Your task to perform on an android device: Clear all items from cart on walmart.com. Image 0: 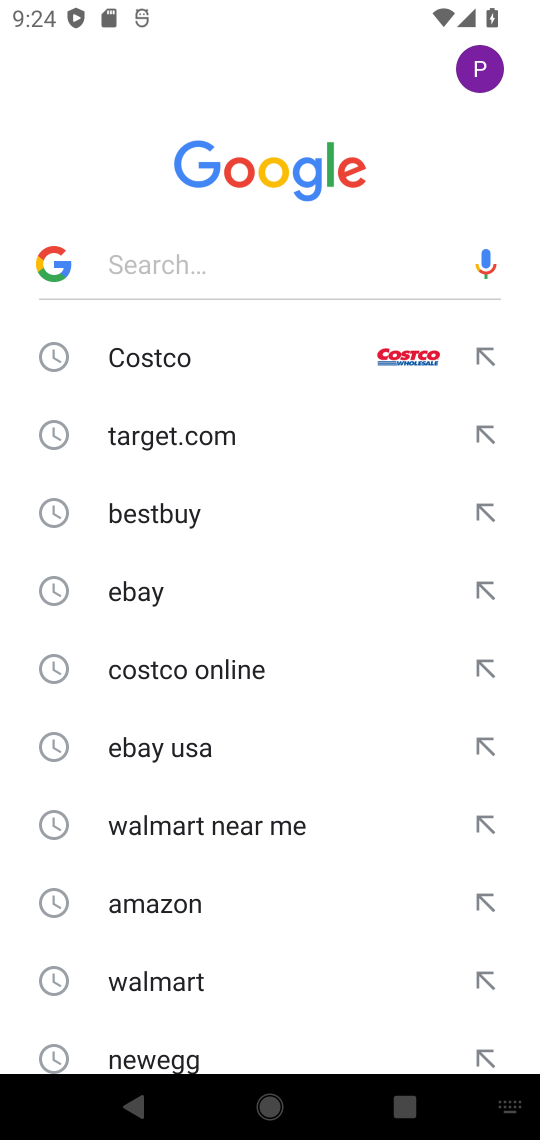
Step 0: press home button
Your task to perform on an android device: Clear all items from cart on walmart.com. Image 1: 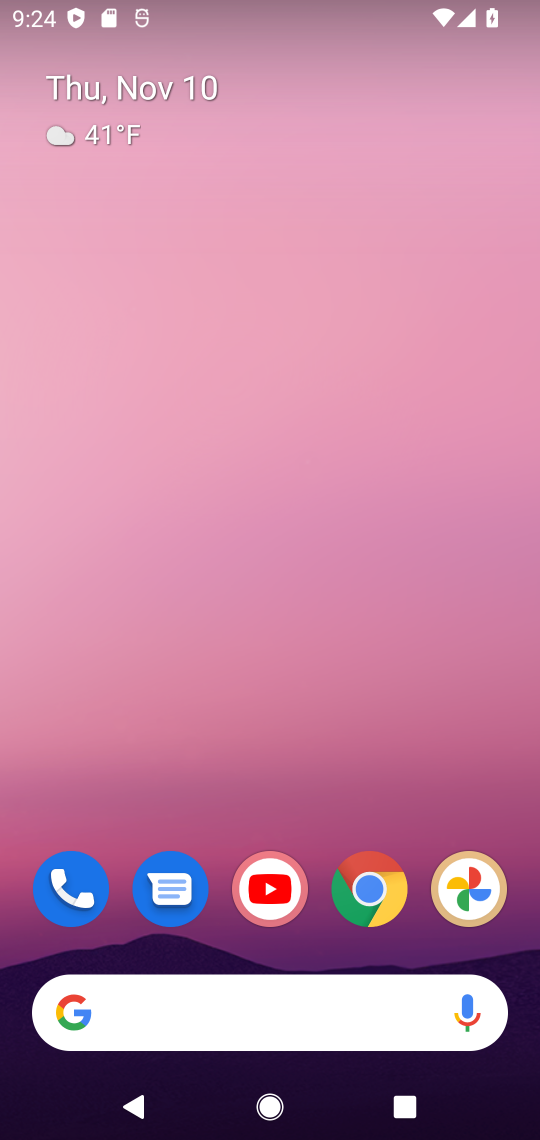
Step 1: click (370, 890)
Your task to perform on an android device: Clear all items from cart on walmart.com. Image 2: 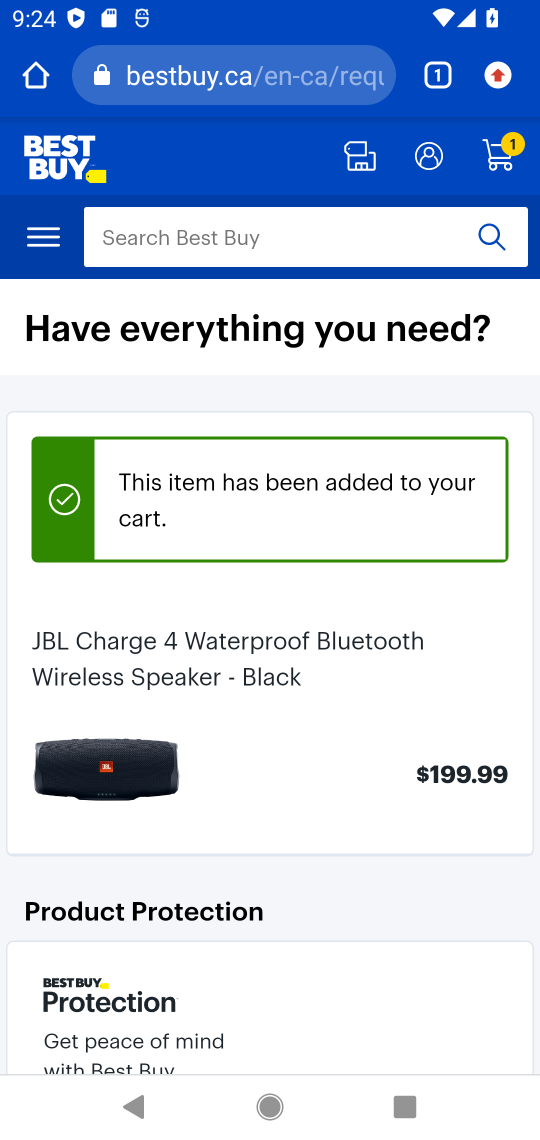
Step 2: click (296, 77)
Your task to perform on an android device: Clear all items from cart on walmart.com. Image 3: 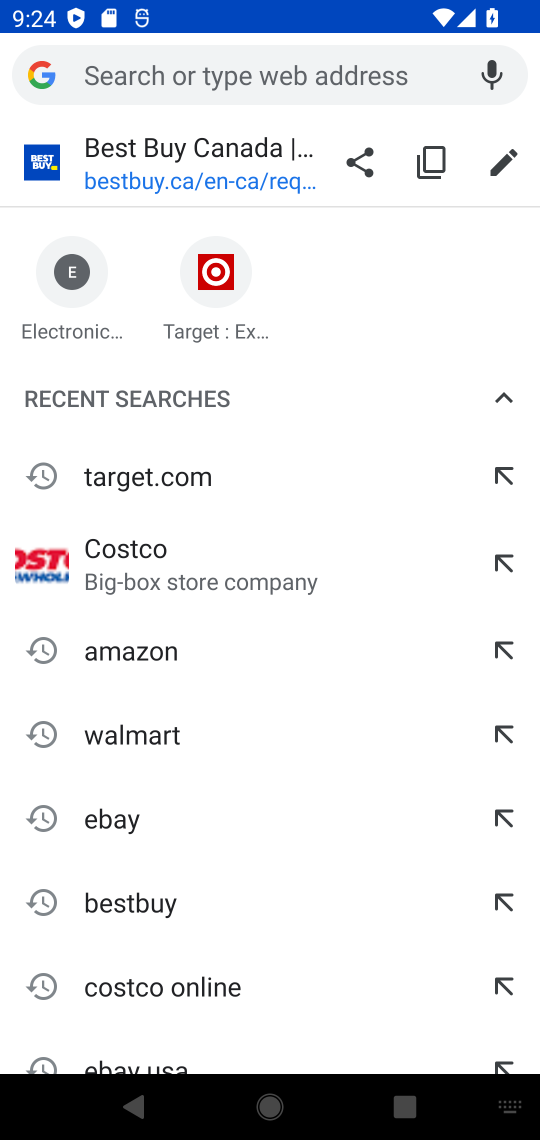
Step 3: click (127, 723)
Your task to perform on an android device: Clear all items from cart on walmart.com. Image 4: 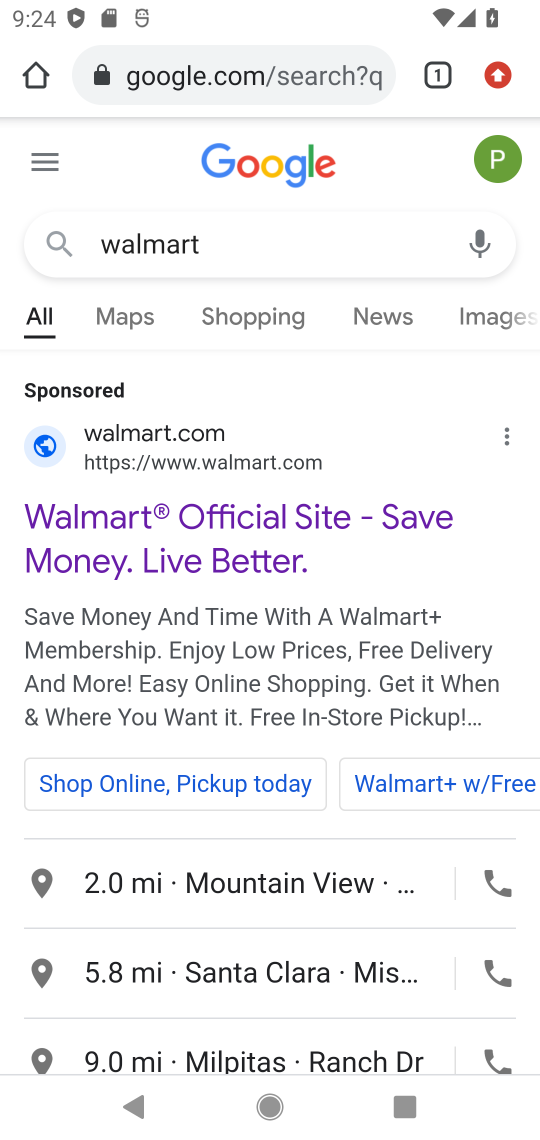
Step 4: drag from (281, 851) to (408, 132)
Your task to perform on an android device: Clear all items from cart on walmart.com. Image 5: 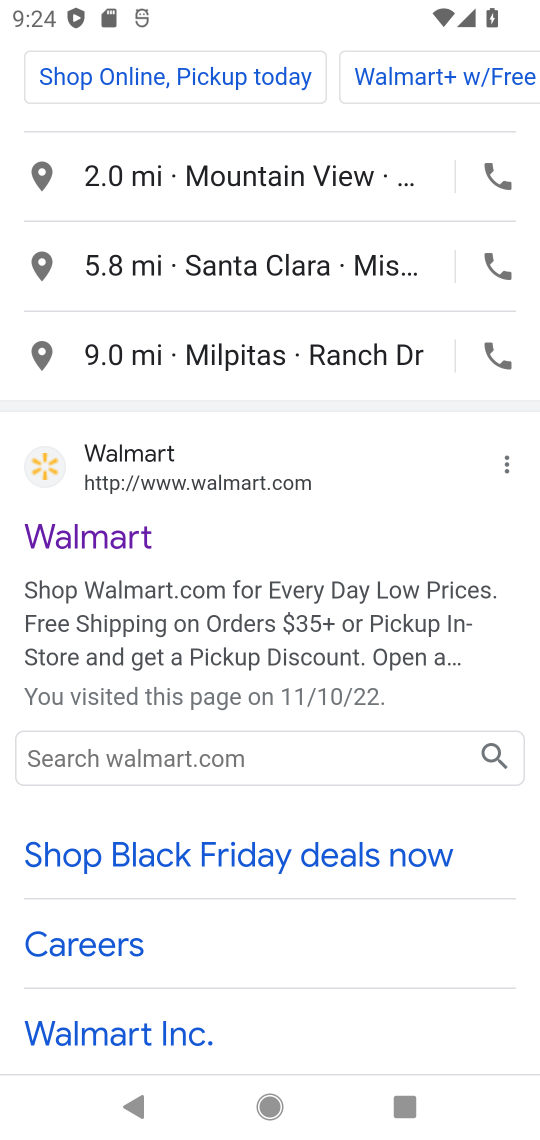
Step 5: click (111, 532)
Your task to perform on an android device: Clear all items from cart on walmart.com. Image 6: 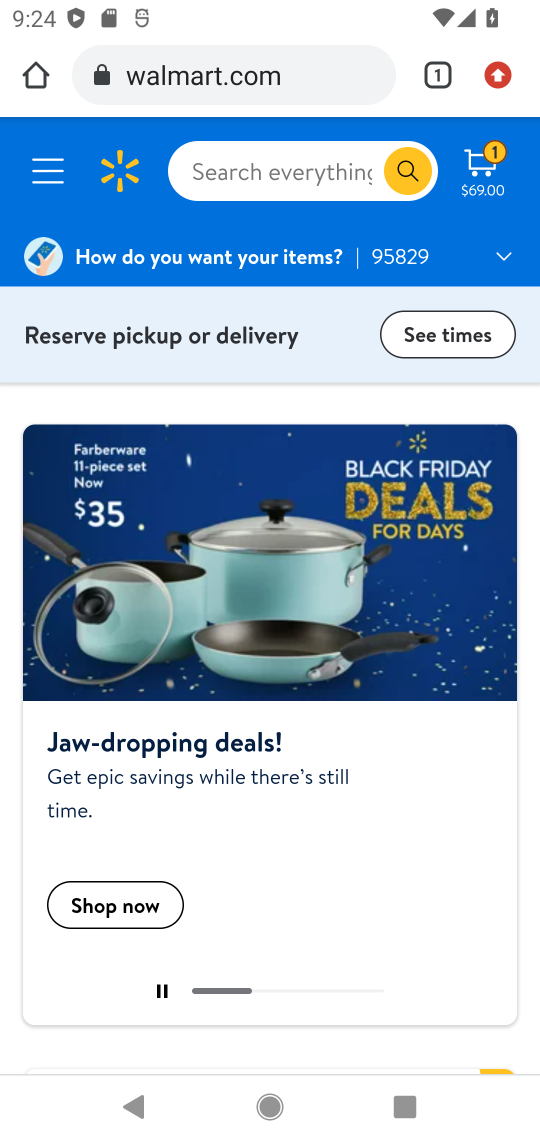
Step 6: click (490, 169)
Your task to perform on an android device: Clear all items from cart on walmart.com. Image 7: 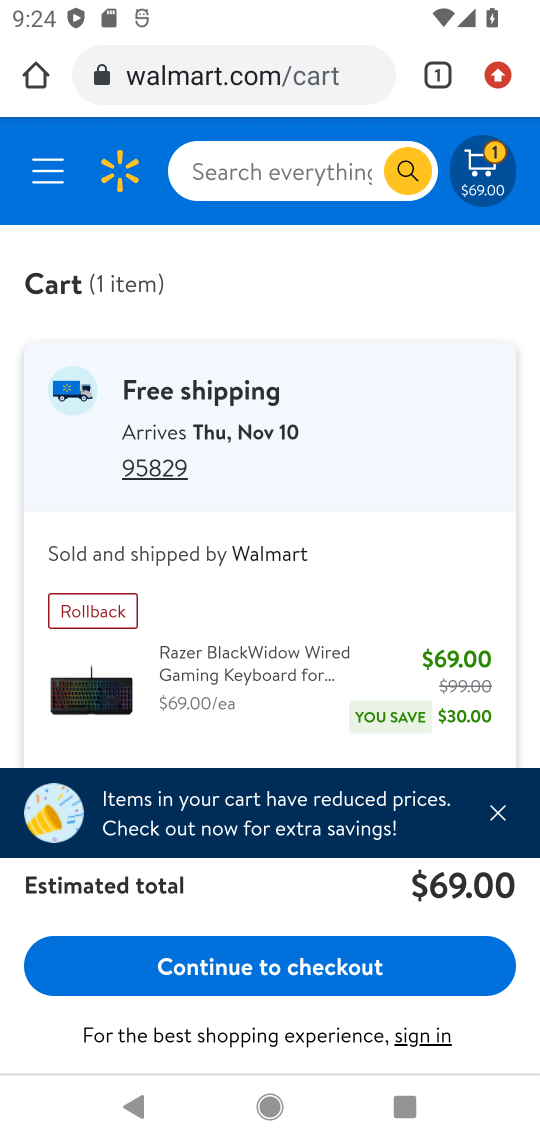
Step 7: drag from (305, 627) to (447, 236)
Your task to perform on an android device: Clear all items from cart on walmart.com. Image 8: 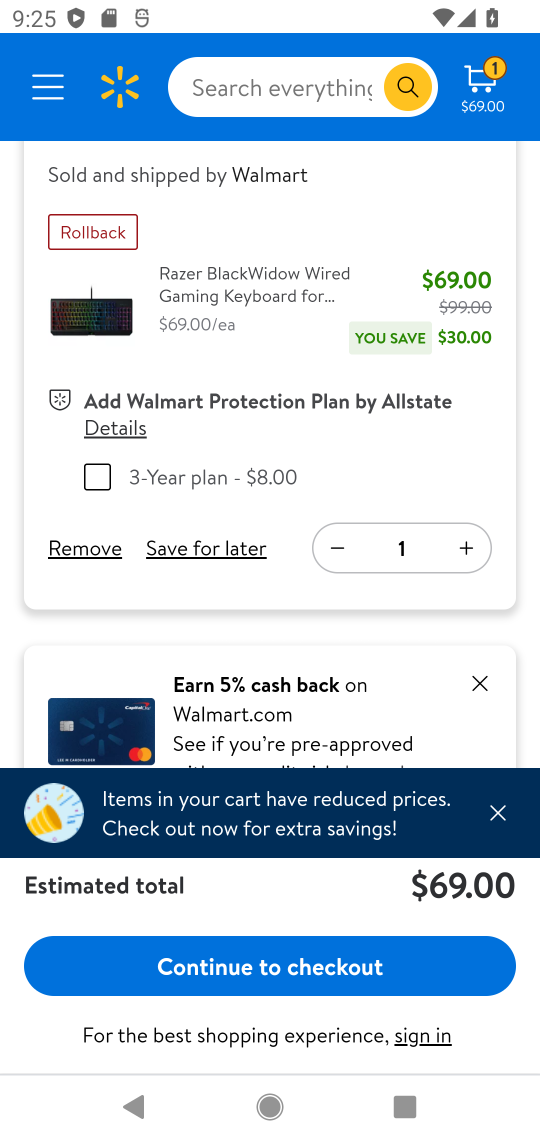
Step 8: click (97, 547)
Your task to perform on an android device: Clear all items from cart on walmart.com. Image 9: 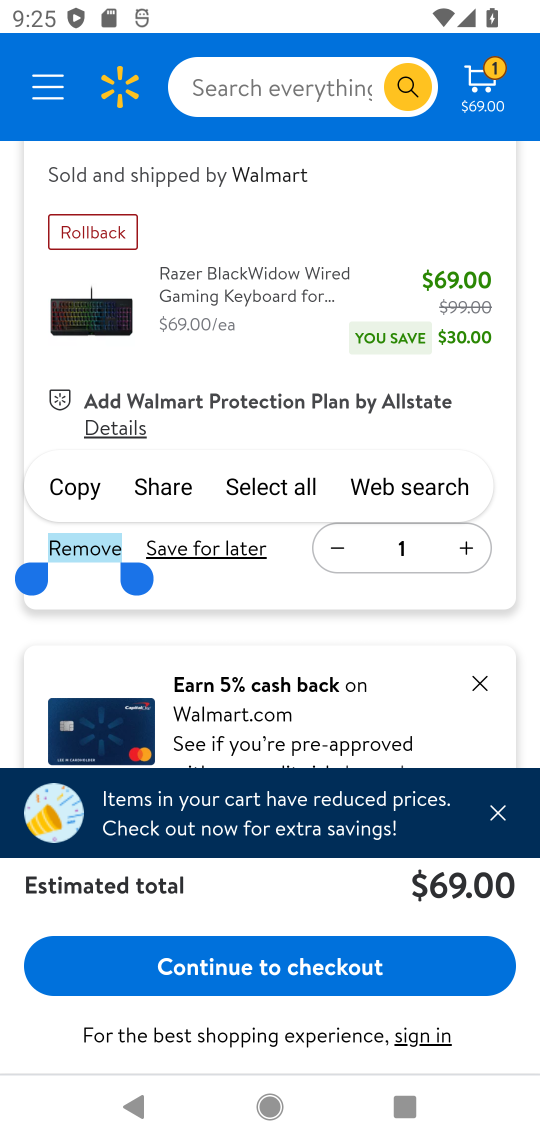
Step 9: click (79, 552)
Your task to perform on an android device: Clear all items from cart on walmart.com. Image 10: 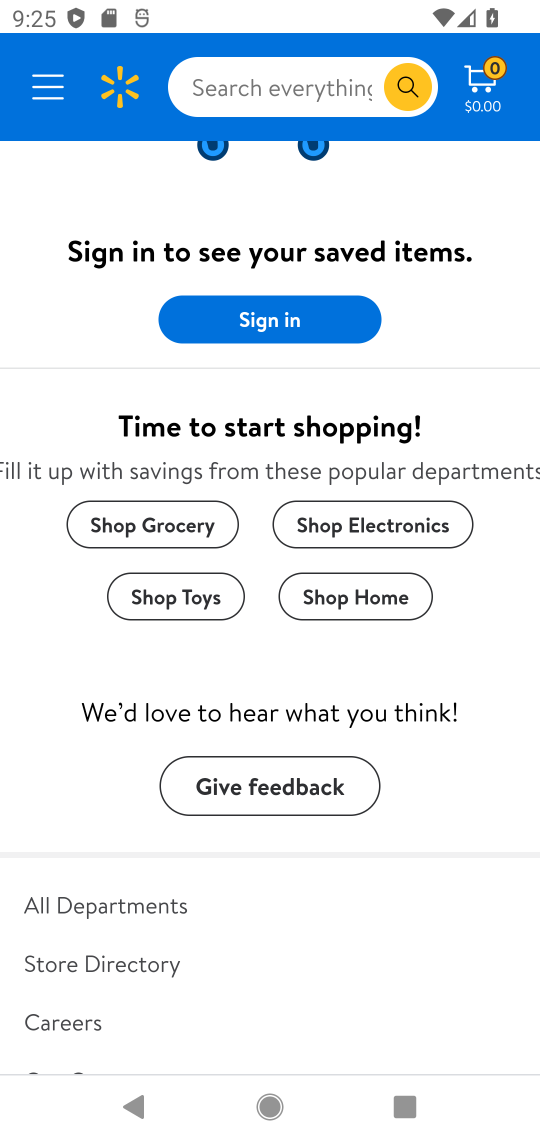
Step 10: task complete